Your task to perform on an android device: open sync settings in chrome Image 0: 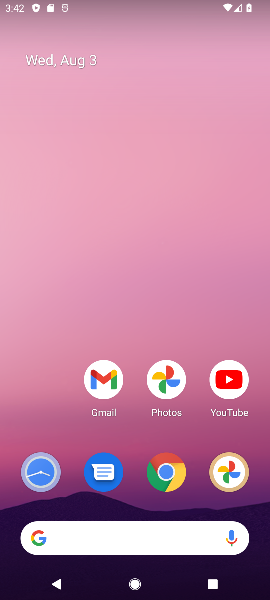
Step 0: click (160, 470)
Your task to perform on an android device: open sync settings in chrome Image 1: 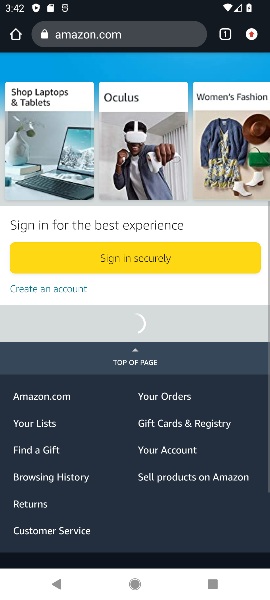
Step 1: drag from (251, 36) to (145, 479)
Your task to perform on an android device: open sync settings in chrome Image 2: 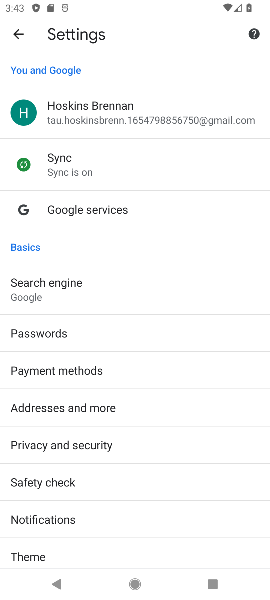
Step 2: click (136, 161)
Your task to perform on an android device: open sync settings in chrome Image 3: 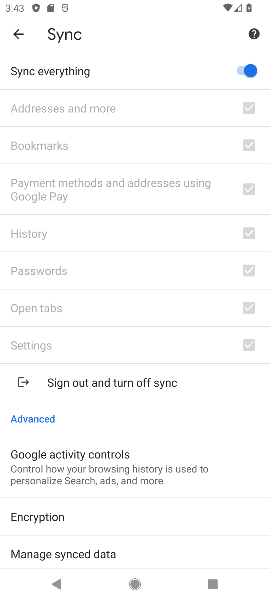
Step 3: task complete